Your task to perform on an android device: empty trash in google photos Image 0: 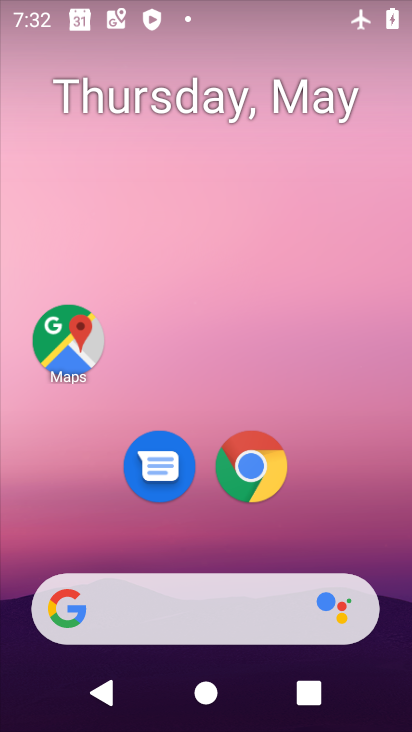
Step 0: drag from (313, 499) to (251, 247)
Your task to perform on an android device: empty trash in google photos Image 1: 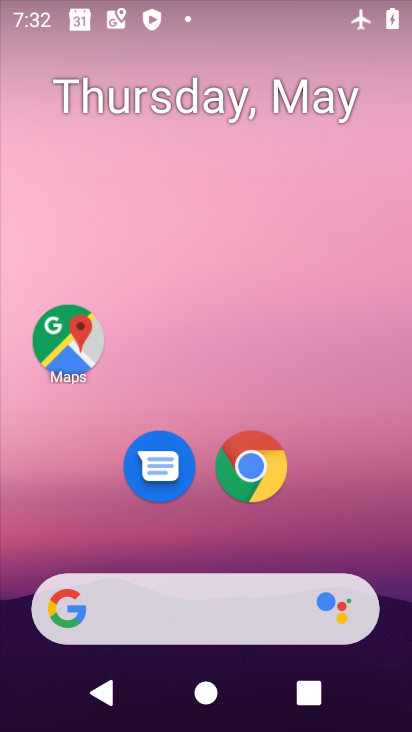
Step 1: drag from (316, 516) to (233, 83)
Your task to perform on an android device: empty trash in google photos Image 2: 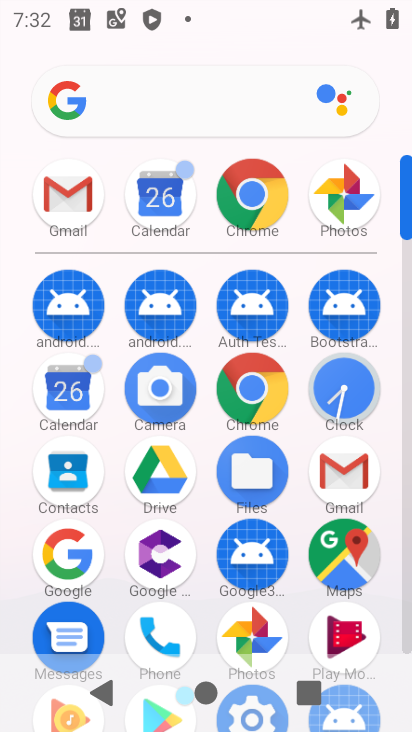
Step 2: click (249, 630)
Your task to perform on an android device: empty trash in google photos Image 3: 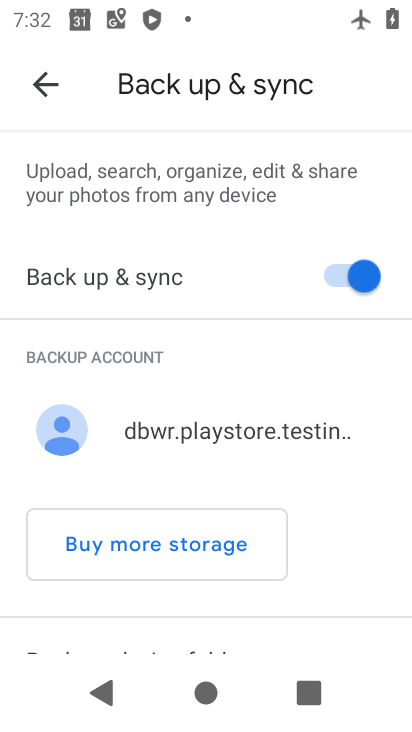
Step 3: click (48, 77)
Your task to perform on an android device: empty trash in google photos Image 4: 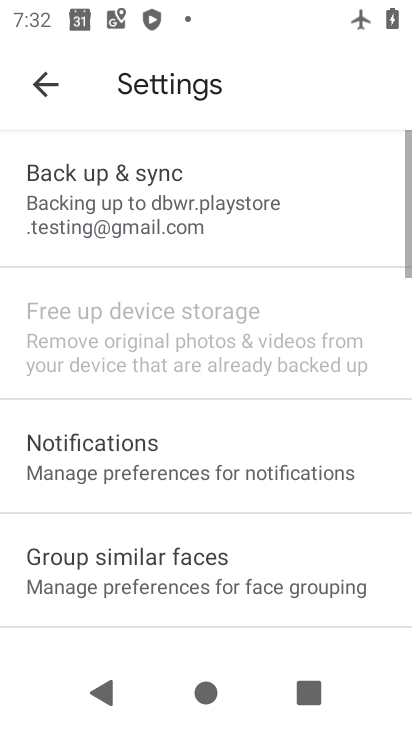
Step 4: click (48, 77)
Your task to perform on an android device: empty trash in google photos Image 5: 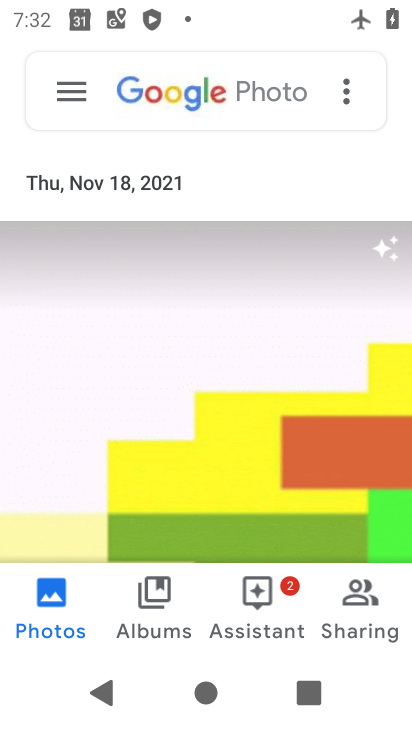
Step 5: click (69, 90)
Your task to perform on an android device: empty trash in google photos Image 6: 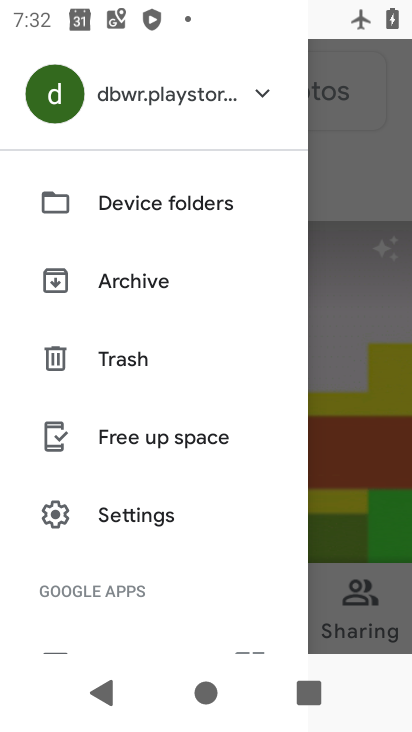
Step 6: click (120, 356)
Your task to perform on an android device: empty trash in google photos Image 7: 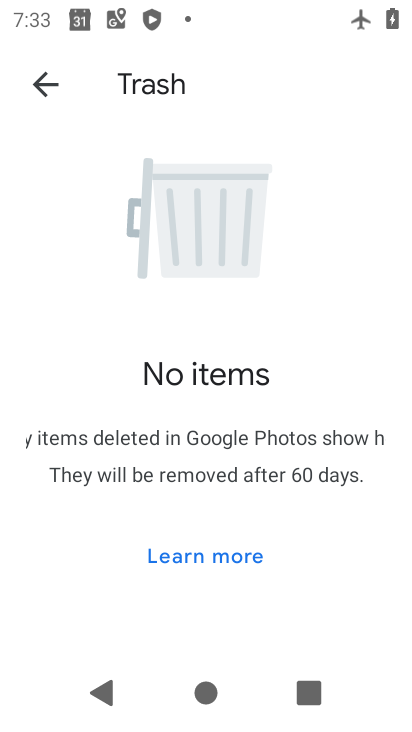
Step 7: task complete